Your task to perform on an android device: turn off notifications in google photos Image 0: 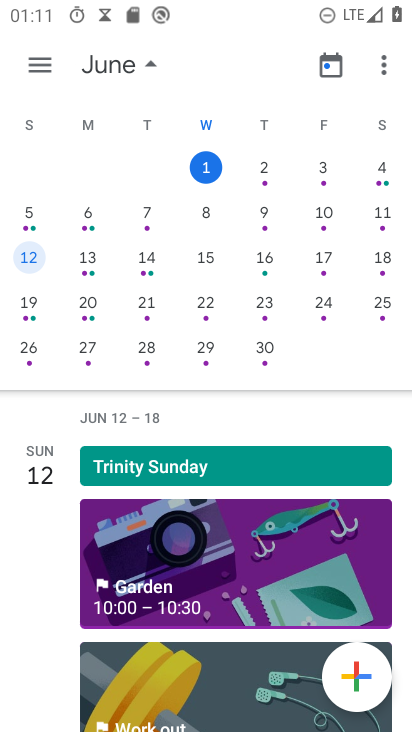
Step 0: press home button
Your task to perform on an android device: turn off notifications in google photos Image 1: 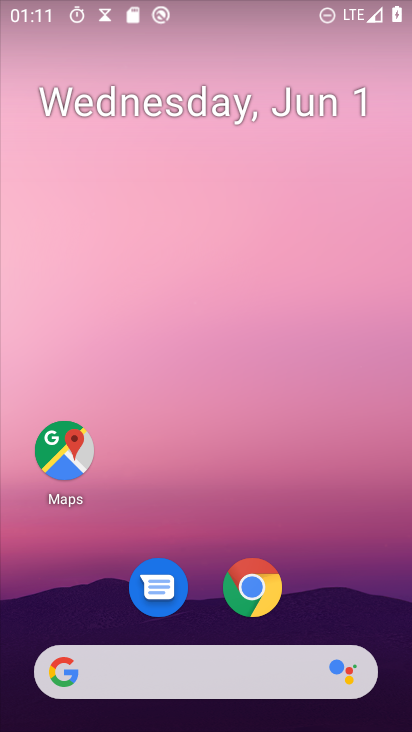
Step 1: drag from (314, 603) to (323, 44)
Your task to perform on an android device: turn off notifications in google photos Image 2: 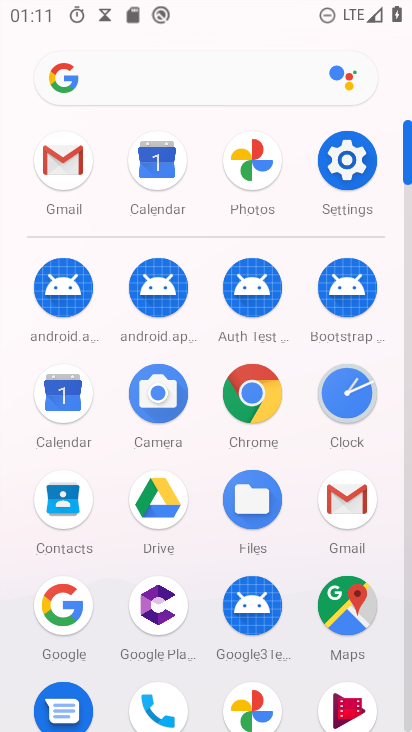
Step 2: click (251, 155)
Your task to perform on an android device: turn off notifications in google photos Image 3: 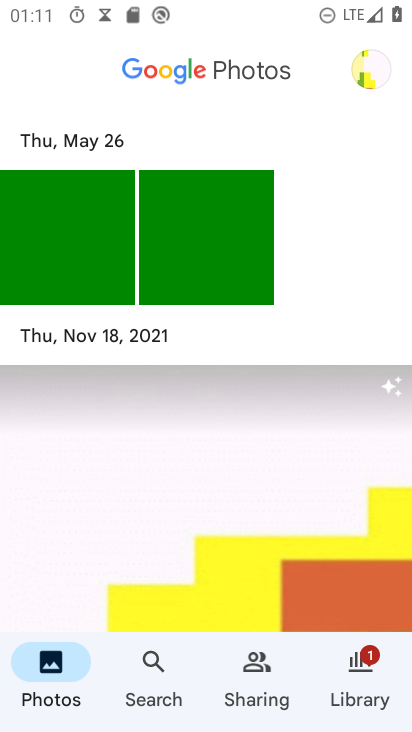
Step 3: click (363, 56)
Your task to perform on an android device: turn off notifications in google photos Image 4: 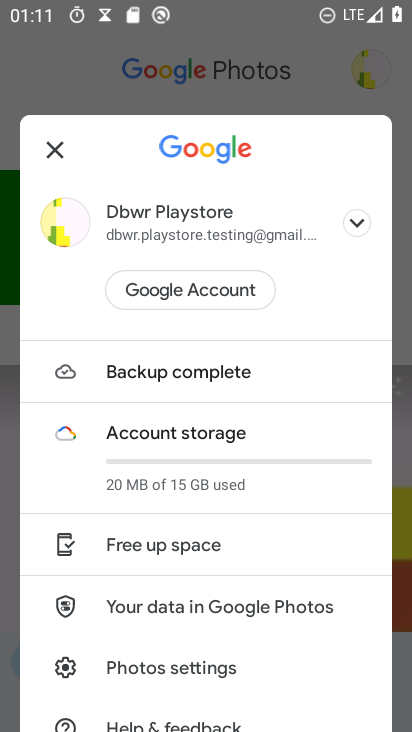
Step 4: click (225, 660)
Your task to perform on an android device: turn off notifications in google photos Image 5: 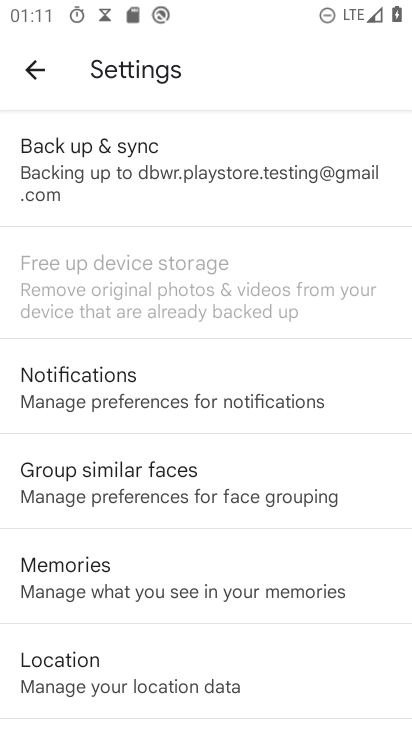
Step 5: click (216, 411)
Your task to perform on an android device: turn off notifications in google photos Image 6: 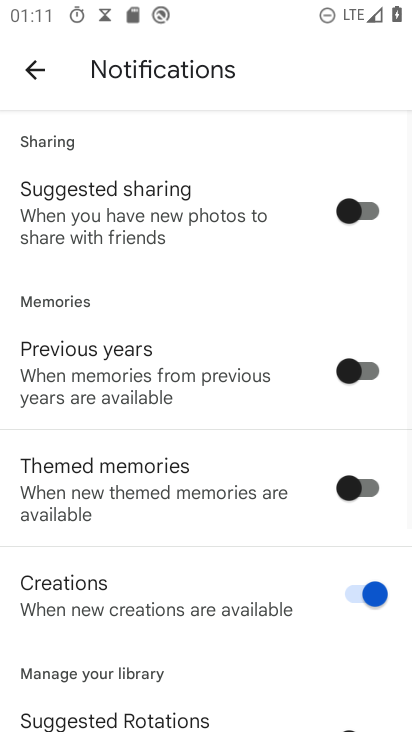
Step 6: drag from (232, 672) to (275, 81)
Your task to perform on an android device: turn off notifications in google photos Image 7: 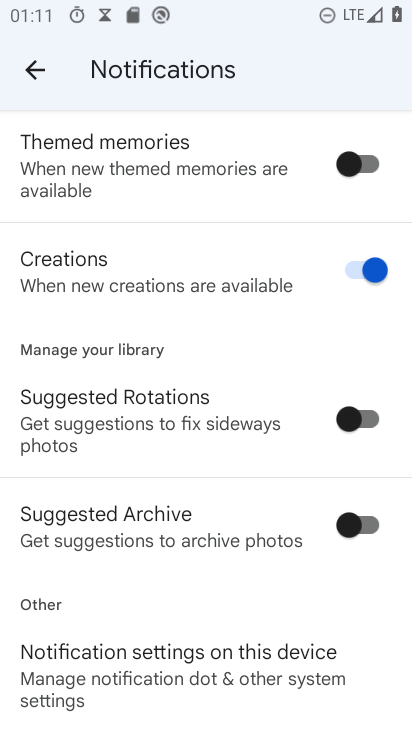
Step 7: click (299, 682)
Your task to perform on an android device: turn off notifications in google photos Image 8: 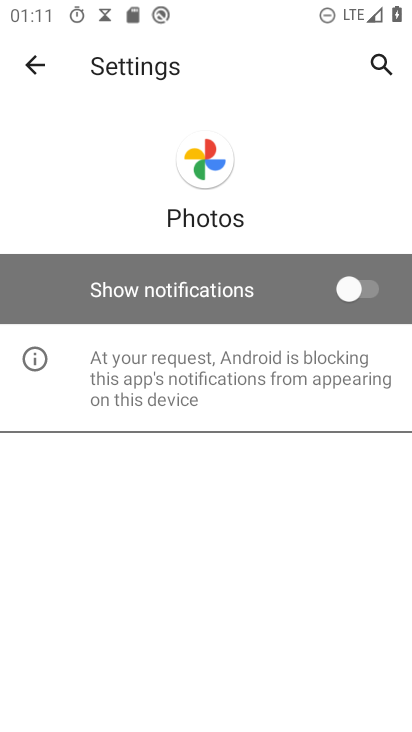
Step 8: task complete